Your task to perform on an android device: move an email to a new category in the gmail app Image 0: 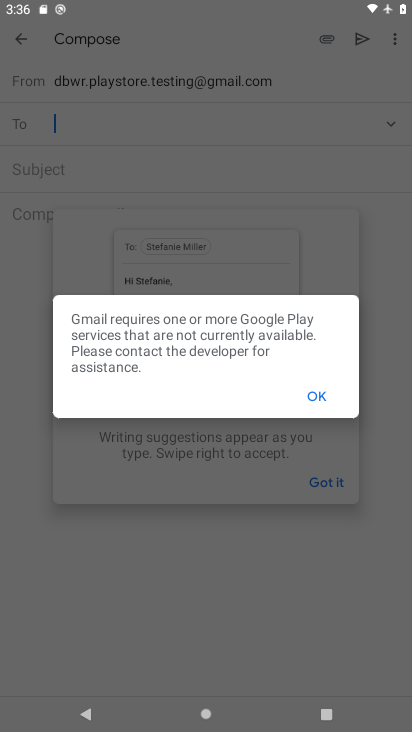
Step 0: press home button
Your task to perform on an android device: move an email to a new category in the gmail app Image 1: 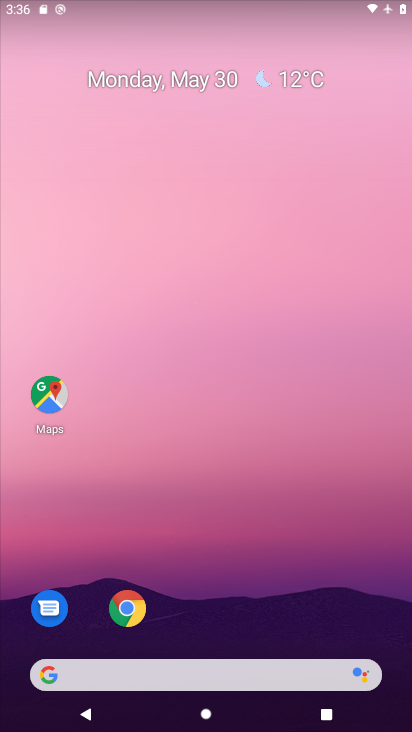
Step 1: drag from (295, 561) to (152, 58)
Your task to perform on an android device: move an email to a new category in the gmail app Image 2: 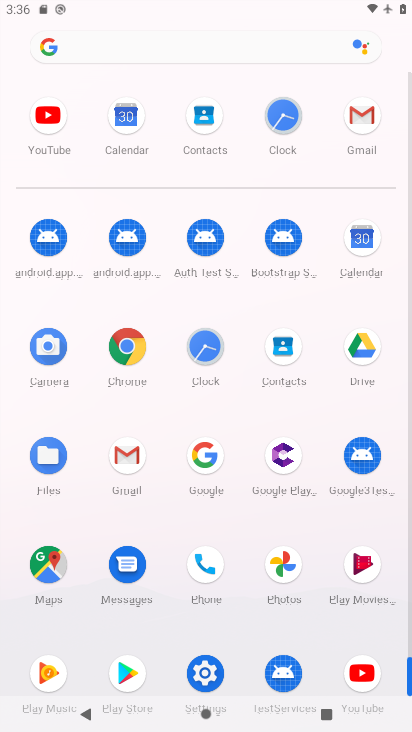
Step 2: click (128, 452)
Your task to perform on an android device: move an email to a new category in the gmail app Image 3: 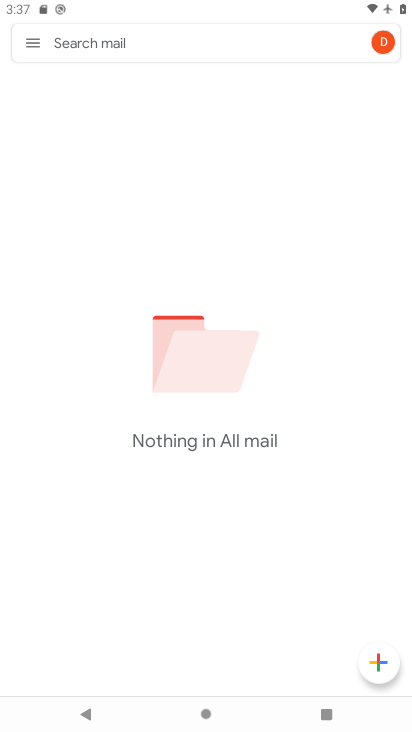
Step 3: task complete